Your task to perform on an android device: find snoozed emails in the gmail app Image 0: 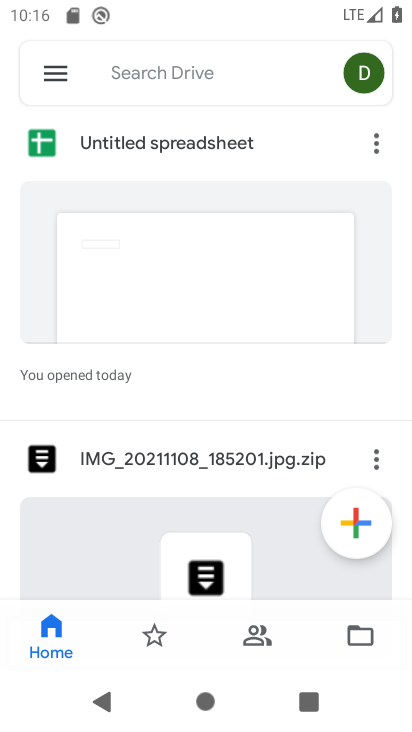
Step 0: press home button
Your task to perform on an android device: find snoozed emails in the gmail app Image 1: 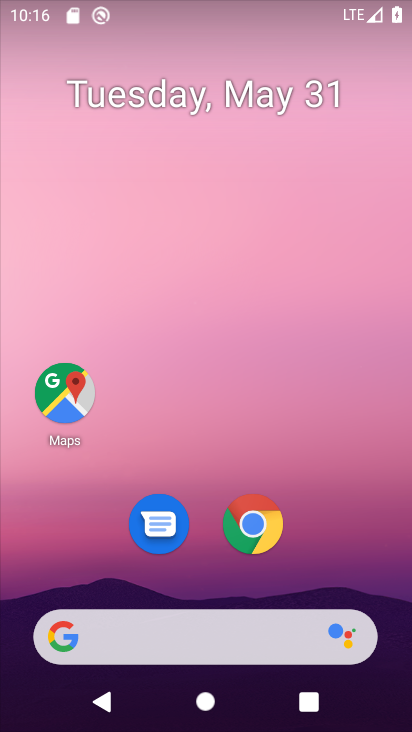
Step 1: drag from (206, 440) to (248, 1)
Your task to perform on an android device: find snoozed emails in the gmail app Image 2: 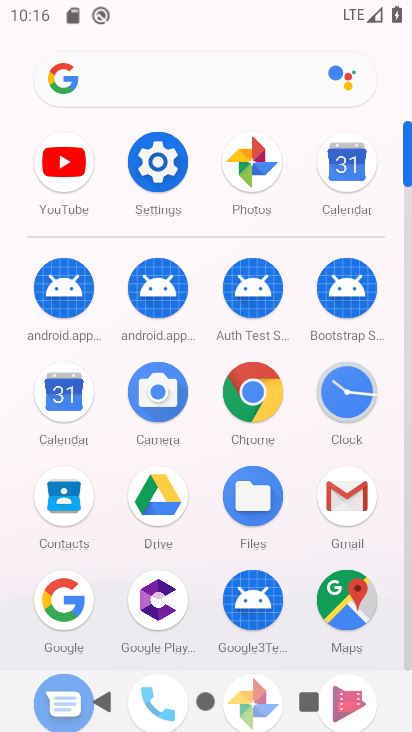
Step 2: click (341, 500)
Your task to perform on an android device: find snoozed emails in the gmail app Image 3: 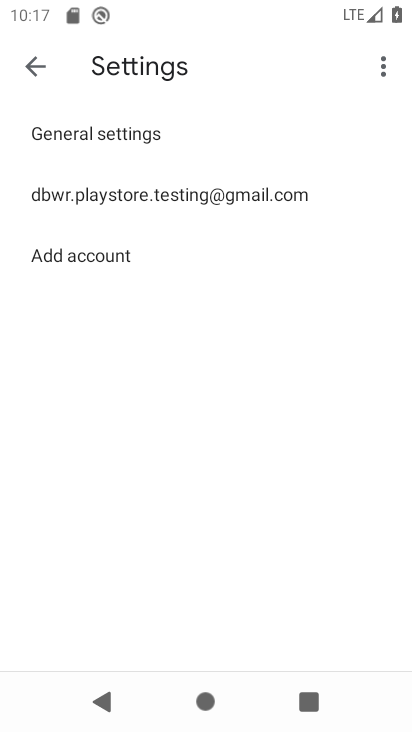
Step 3: click (38, 63)
Your task to perform on an android device: find snoozed emails in the gmail app Image 4: 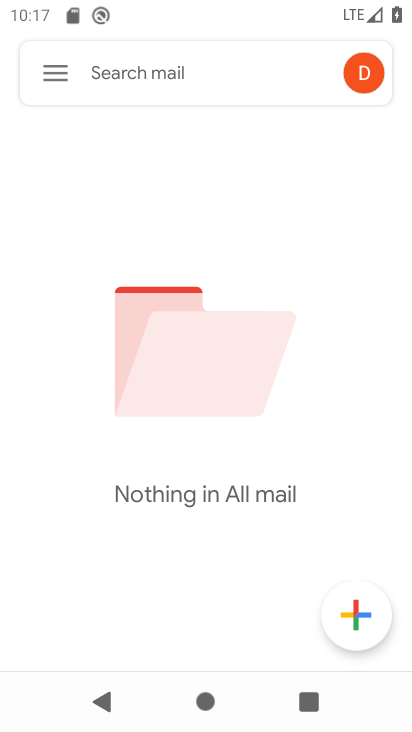
Step 4: click (57, 70)
Your task to perform on an android device: find snoozed emails in the gmail app Image 5: 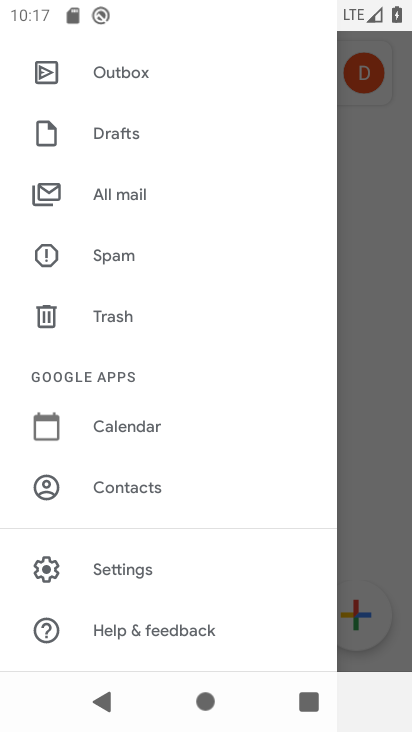
Step 5: drag from (191, 200) to (202, 462)
Your task to perform on an android device: find snoozed emails in the gmail app Image 6: 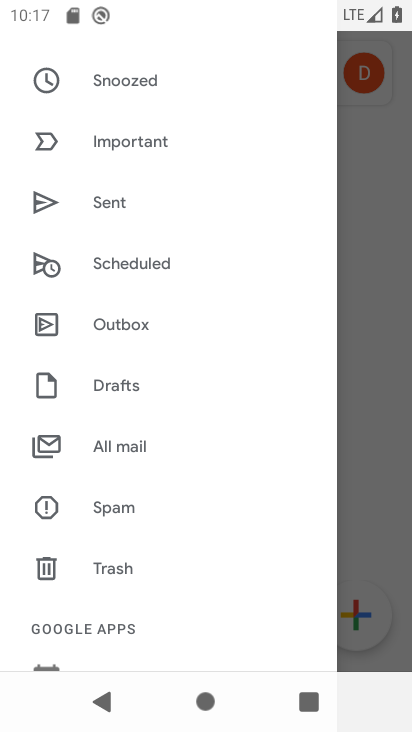
Step 6: click (178, 82)
Your task to perform on an android device: find snoozed emails in the gmail app Image 7: 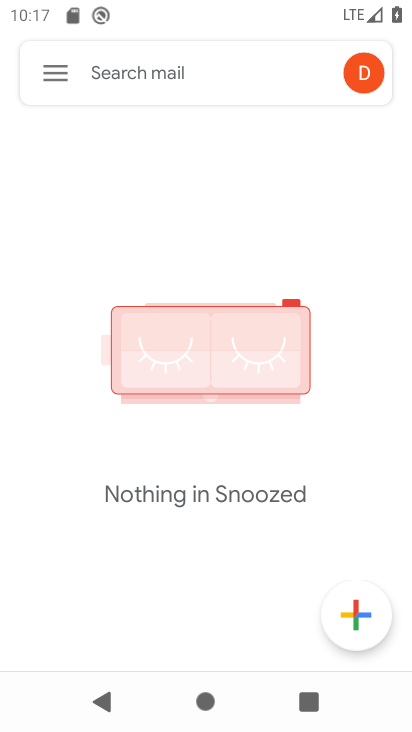
Step 7: task complete